Your task to perform on an android device: Turn on the flashlight Image 0: 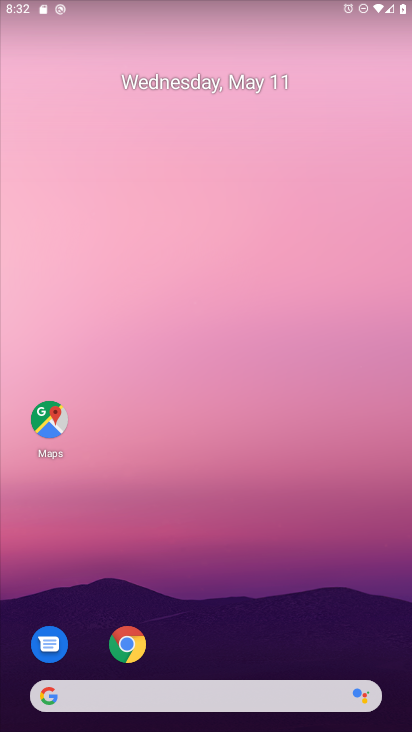
Step 0: drag from (245, 574) to (54, 9)
Your task to perform on an android device: Turn on the flashlight Image 1: 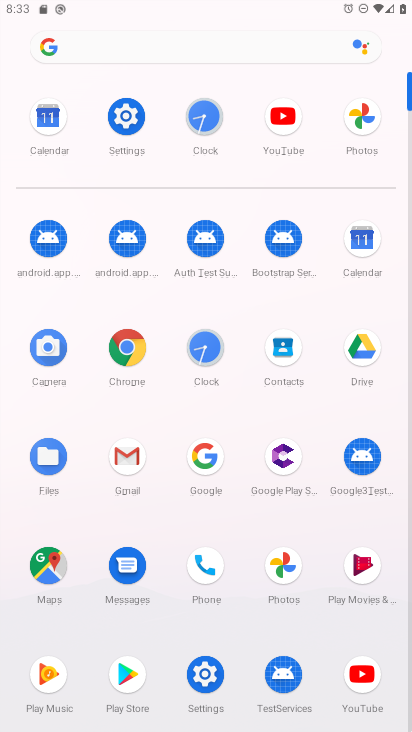
Step 1: click (133, 126)
Your task to perform on an android device: Turn on the flashlight Image 2: 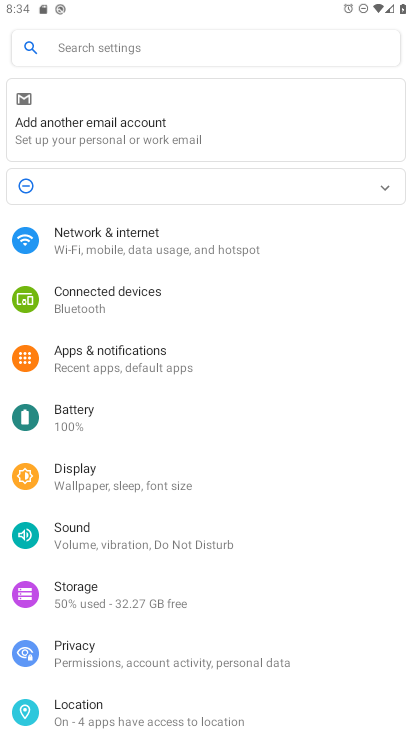
Step 2: click (83, 343)
Your task to perform on an android device: Turn on the flashlight Image 3: 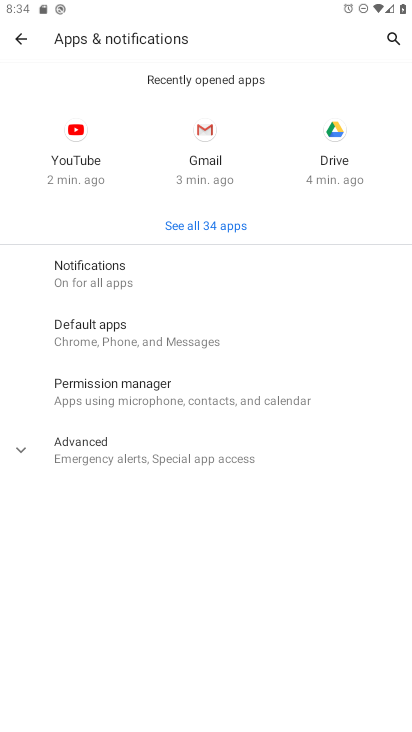
Step 3: click (22, 30)
Your task to perform on an android device: Turn on the flashlight Image 4: 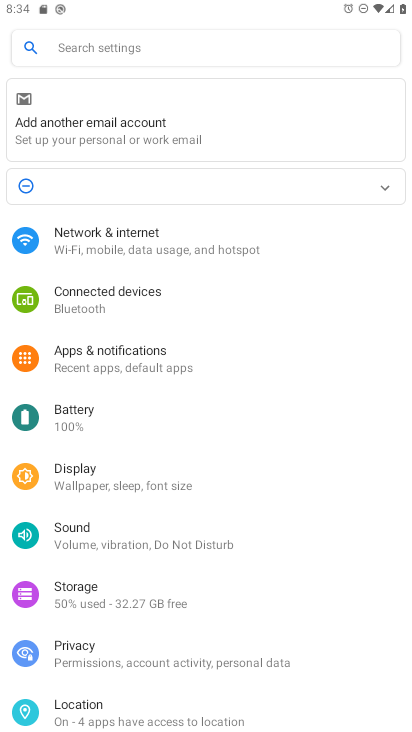
Step 4: task complete